Your task to perform on an android device: turn on the 12-hour format for clock Image 0: 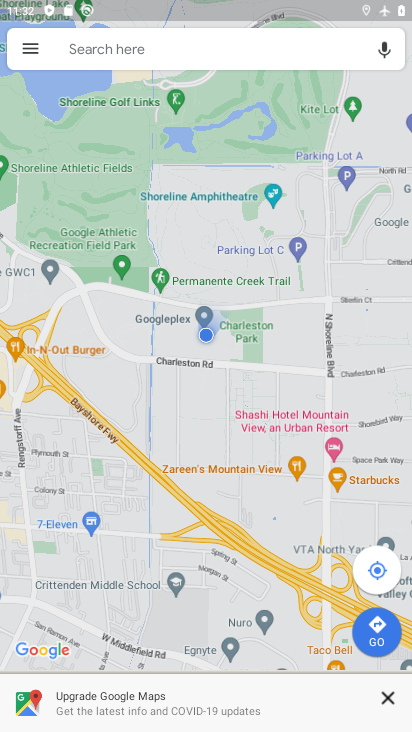
Step 0: press home button
Your task to perform on an android device: turn on the 12-hour format for clock Image 1: 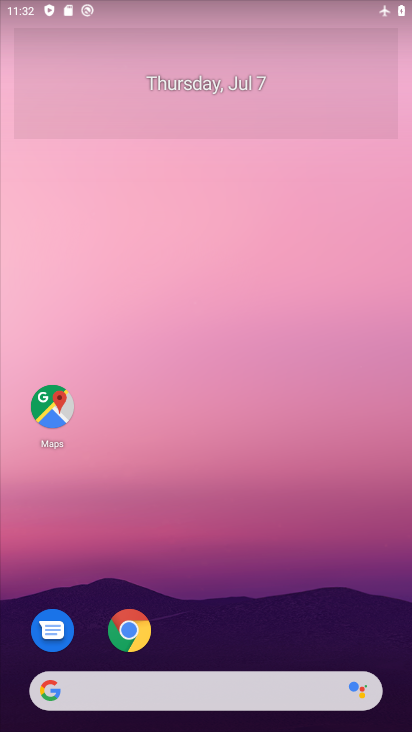
Step 1: drag from (390, 681) to (277, 1)
Your task to perform on an android device: turn on the 12-hour format for clock Image 2: 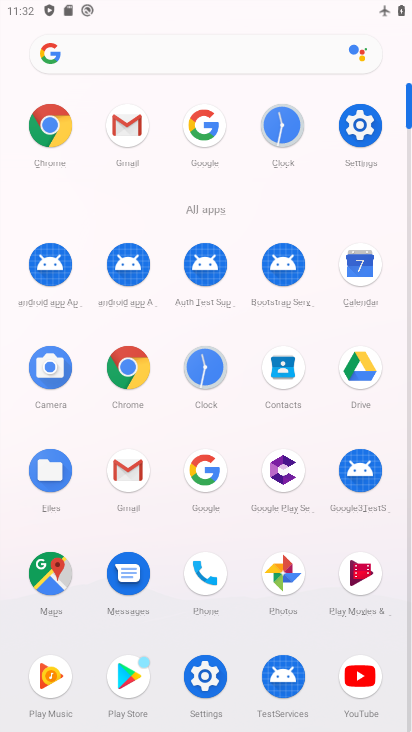
Step 2: click (267, 125)
Your task to perform on an android device: turn on the 12-hour format for clock Image 3: 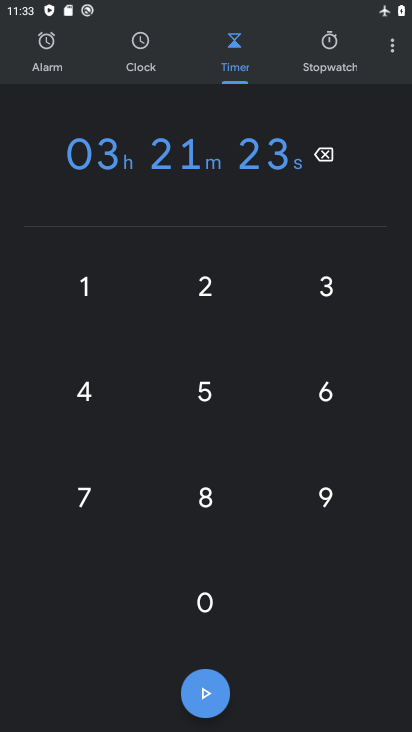
Step 3: click (390, 43)
Your task to perform on an android device: turn on the 12-hour format for clock Image 4: 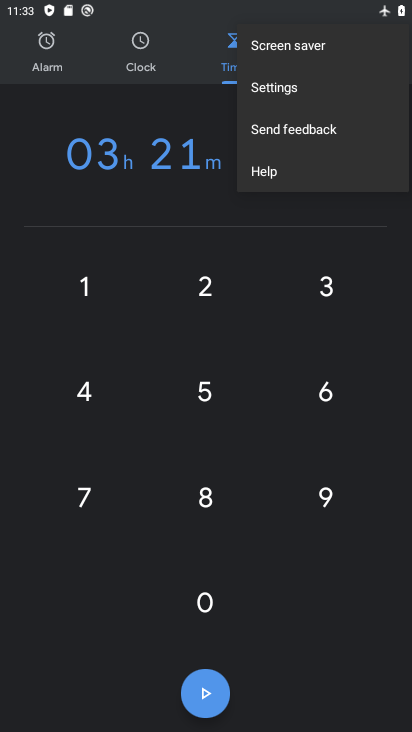
Step 4: click (289, 87)
Your task to perform on an android device: turn on the 12-hour format for clock Image 5: 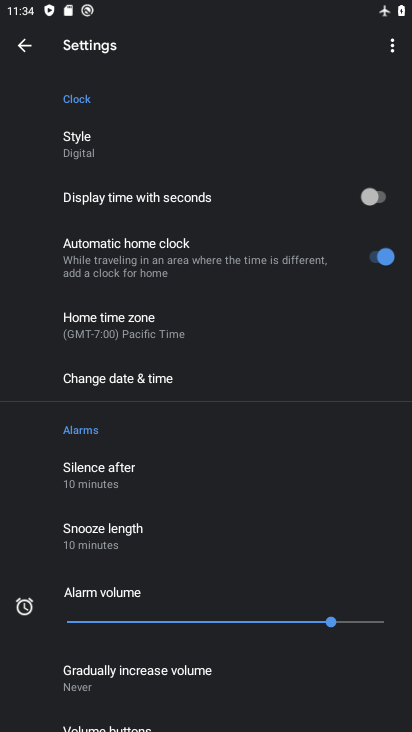
Step 5: click (179, 380)
Your task to perform on an android device: turn on the 12-hour format for clock Image 6: 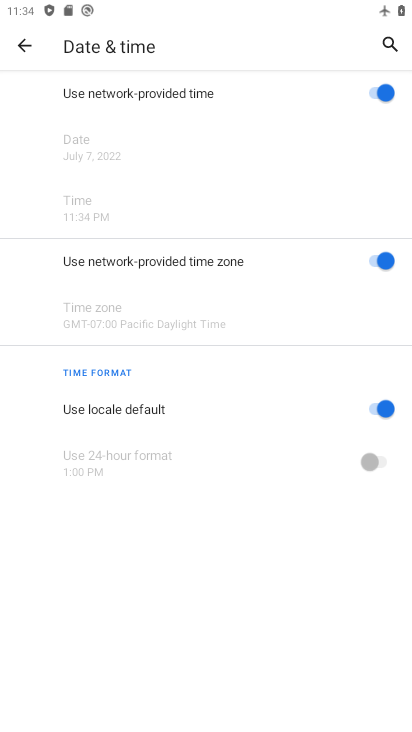
Step 6: task complete